Your task to perform on an android device: turn notification dots off Image 0: 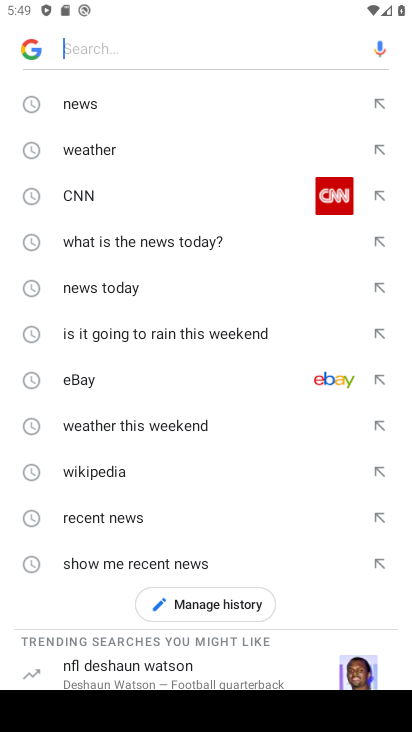
Step 0: press home button
Your task to perform on an android device: turn notification dots off Image 1: 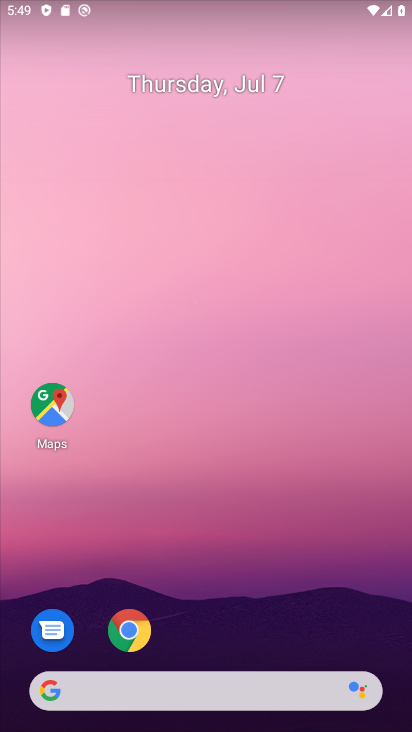
Step 1: drag from (229, 485) to (249, 47)
Your task to perform on an android device: turn notification dots off Image 2: 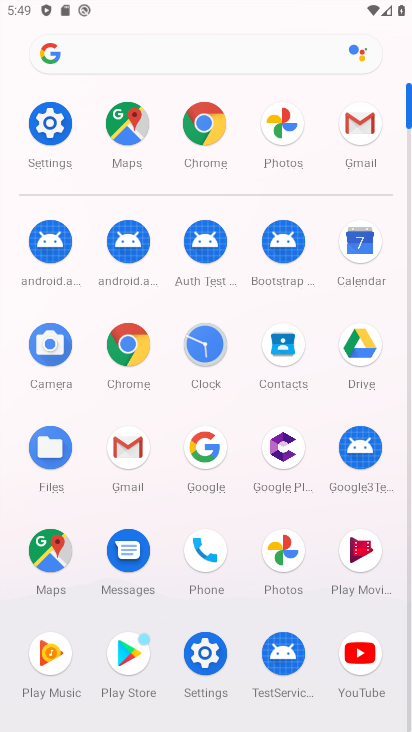
Step 2: click (49, 142)
Your task to perform on an android device: turn notification dots off Image 3: 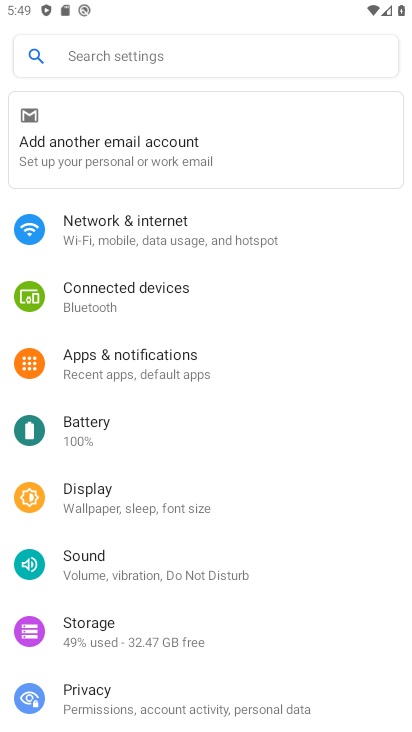
Step 3: click (164, 370)
Your task to perform on an android device: turn notification dots off Image 4: 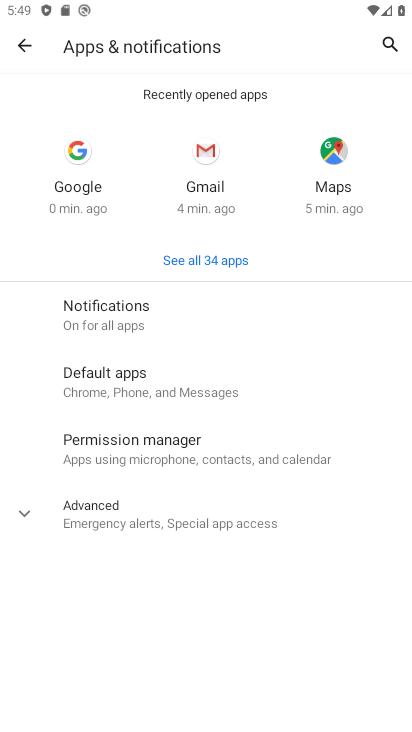
Step 4: click (112, 312)
Your task to perform on an android device: turn notification dots off Image 5: 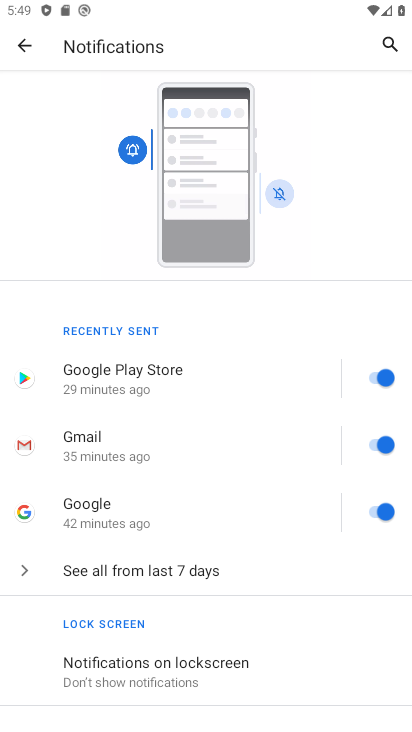
Step 5: drag from (364, 467) to (364, 358)
Your task to perform on an android device: turn notification dots off Image 6: 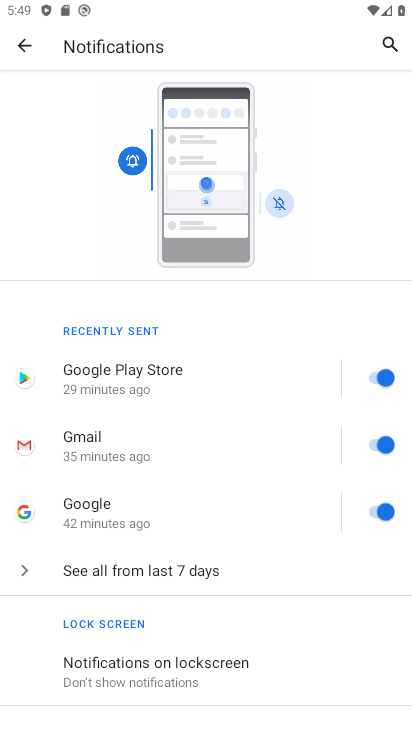
Step 6: drag from (142, 512) to (141, 354)
Your task to perform on an android device: turn notification dots off Image 7: 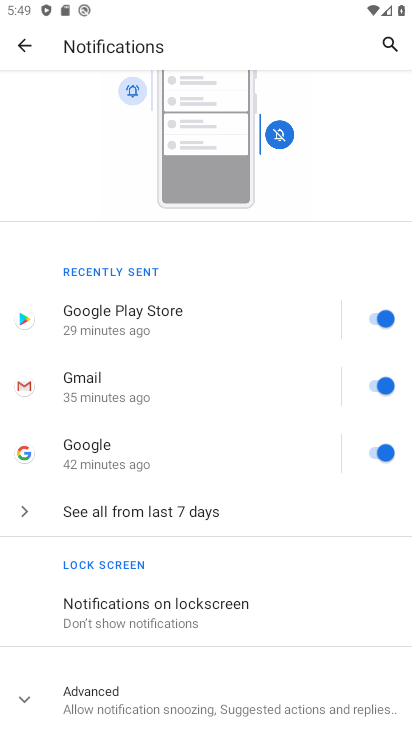
Step 7: click (88, 691)
Your task to perform on an android device: turn notification dots off Image 8: 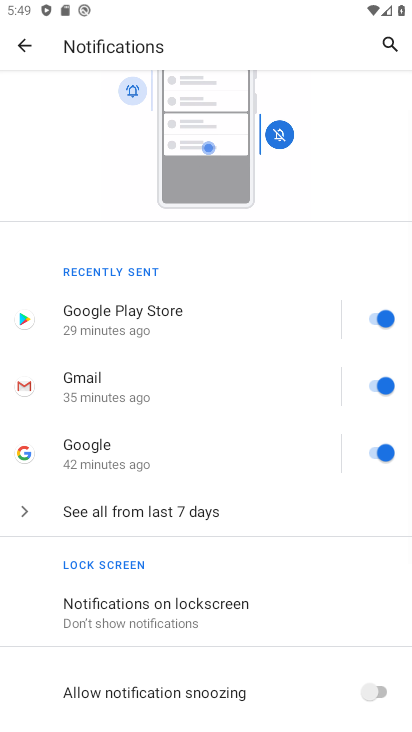
Step 8: drag from (192, 444) to (217, 327)
Your task to perform on an android device: turn notification dots off Image 9: 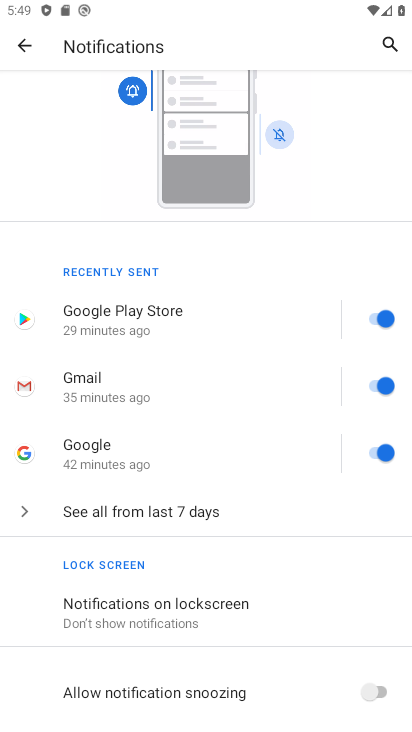
Step 9: drag from (176, 685) to (221, 386)
Your task to perform on an android device: turn notification dots off Image 10: 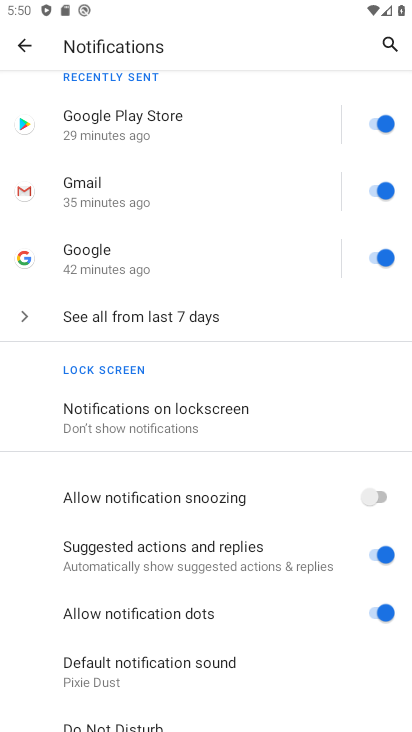
Step 10: click (370, 613)
Your task to perform on an android device: turn notification dots off Image 11: 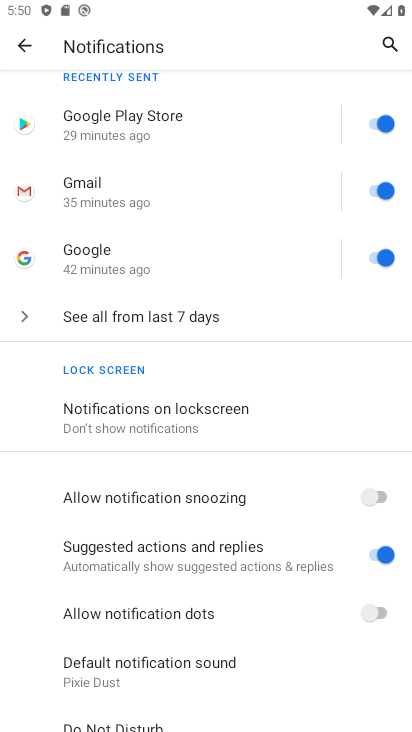
Step 11: task complete